Your task to perform on an android device: Play the last video I watched on Youtube Image 0: 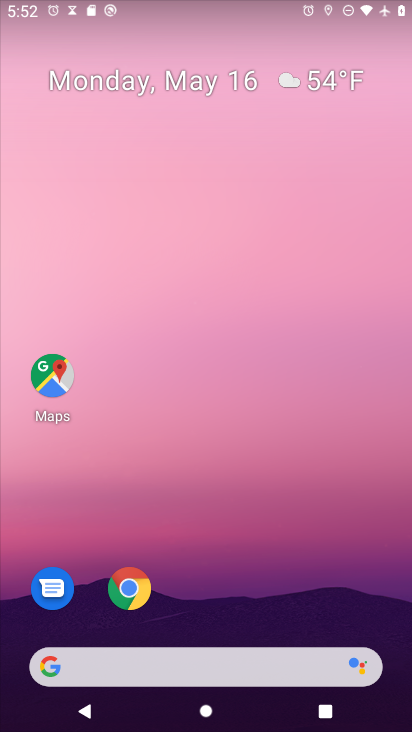
Step 0: drag from (290, 565) to (278, 24)
Your task to perform on an android device: Play the last video I watched on Youtube Image 1: 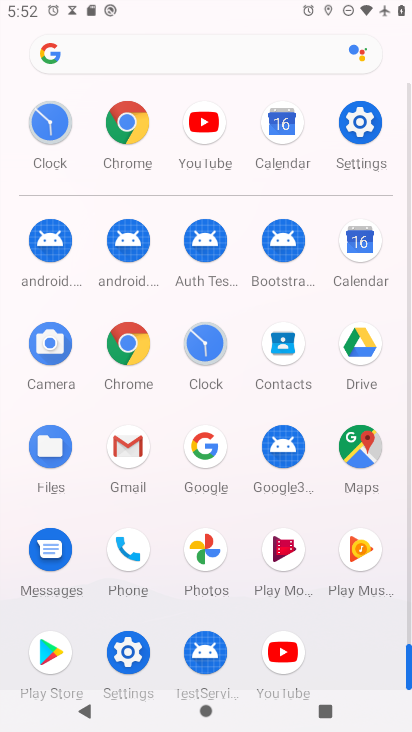
Step 1: drag from (16, 430) to (10, 153)
Your task to perform on an android device: Play the last video I watched on Youtube Image 2: 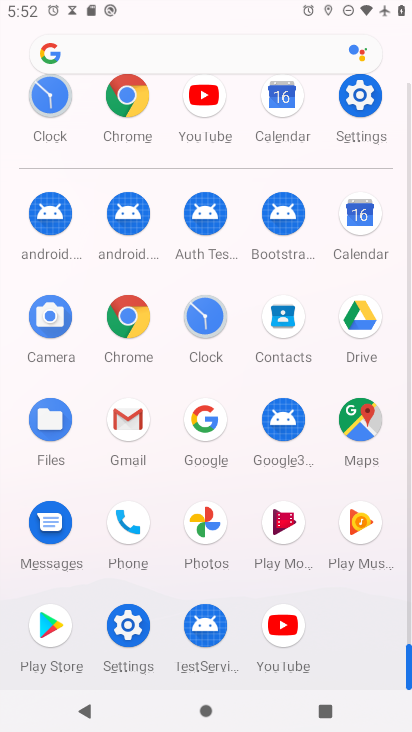
Step 2: click (282, 624)
Your task to perform on an android device: Play the last video I watched on Youtube Image 3: 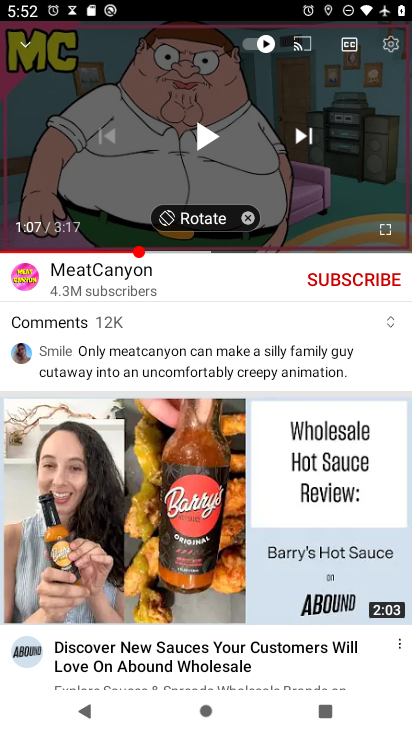
Step 3: press back button
Your task to perform on an android device: Play the last video I watched on Youtube Image 4: 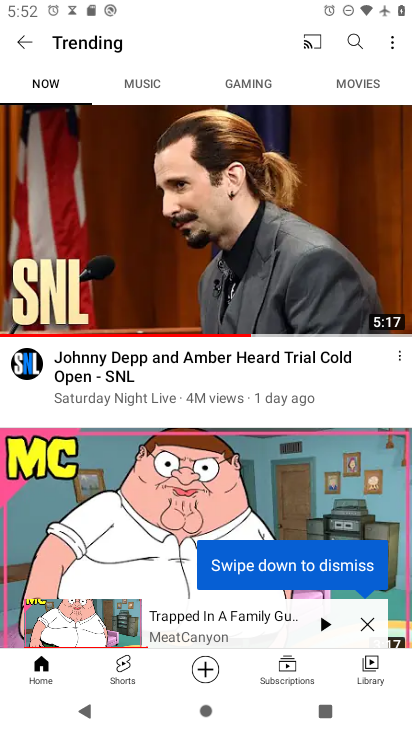
Step 4: drag from (109, 502) to (118, 273)
Your task to perform on an android device: Play the last video I watched on Youtube Image 5: 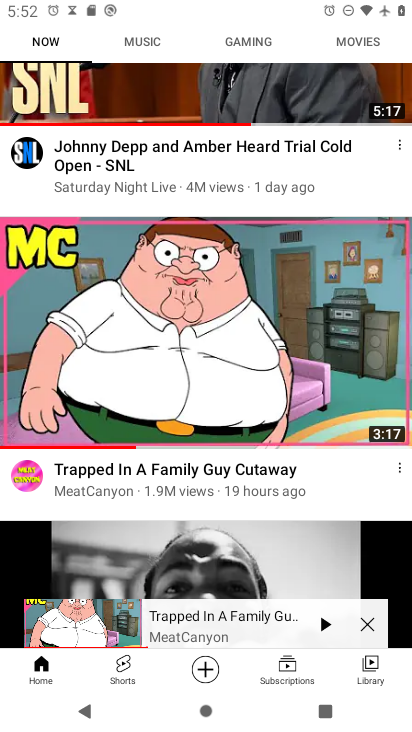
Step 5: drag from (180, 202) to (172, 453)
Your task to perform on an android device: Play the last video I watched on Youtube Image 6: 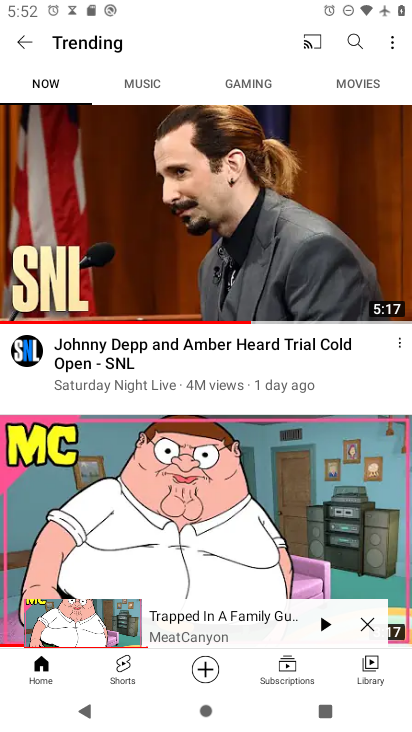
Step 6: click (389, 668)
Your task to perform on an android device: Play the last video I watched on Youtube Image 7: 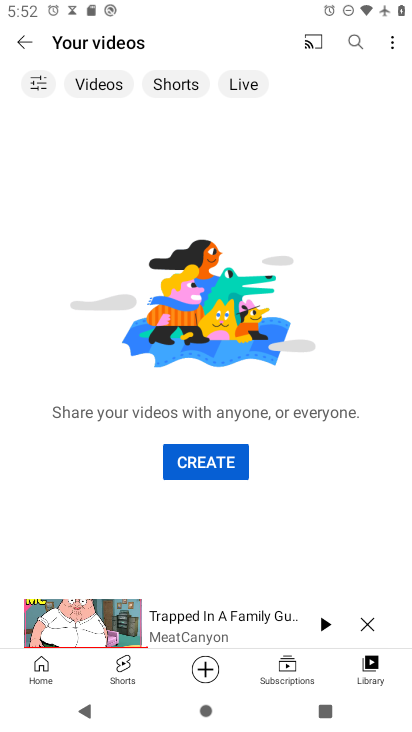
Step 7: click (369, 674)
Your task to perform on an android device: Play the last video I watched on Youtube Image 8: 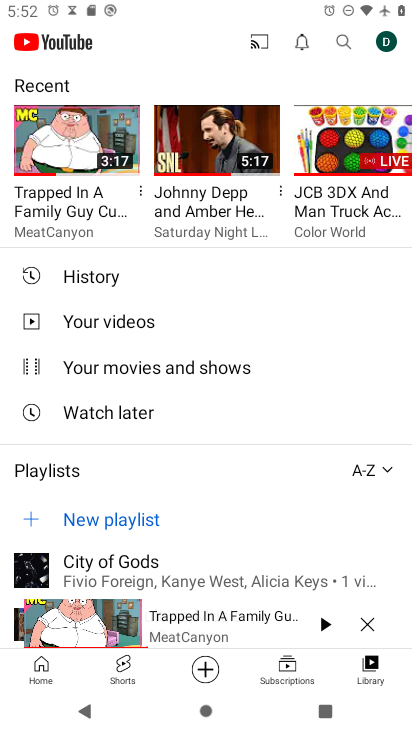
Step 8: click (97, 147)
Your task to perform on an android device: Play the last video I watched on Youtube Image 9: 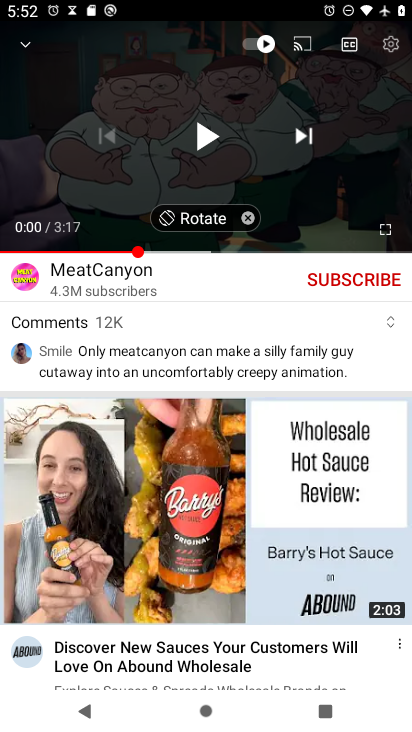
Step 9: click (200, 133)
Your task to perform on an android device: Play the last video I watched on Youtube Image 10: 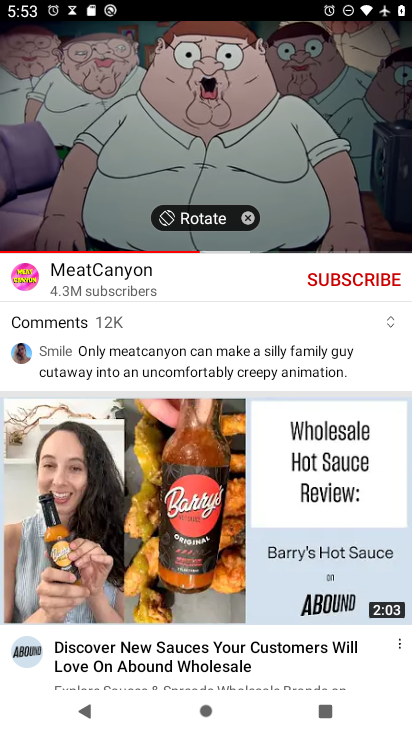
Step 10: task complete